Your task to perform on an android device: See recent photos Image 0: 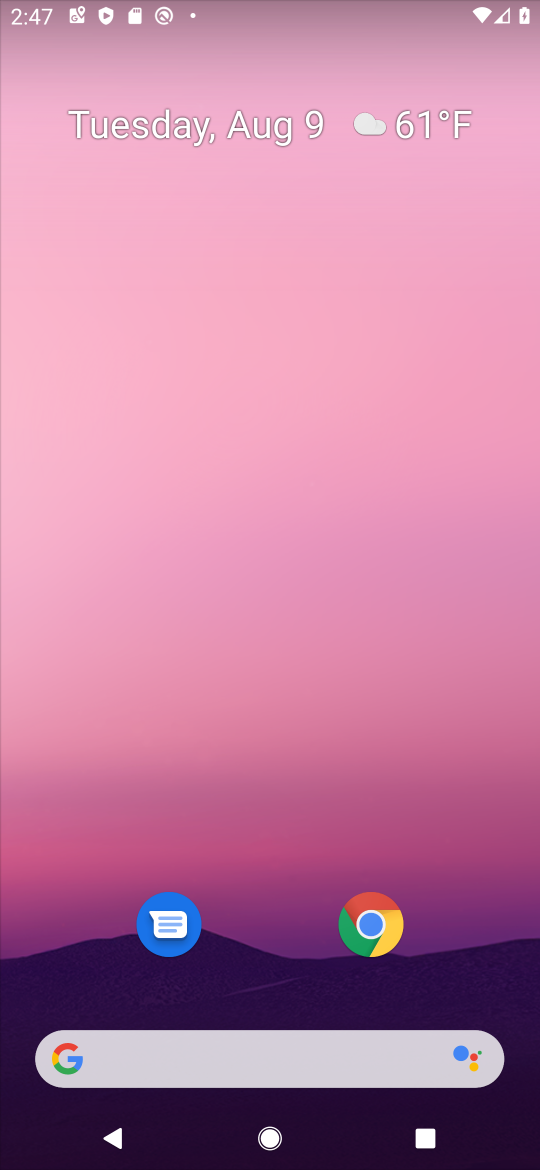
Step 0: drag from (305, 823) to (369, 2)
Your task to perform on an android device: See recent photos Image 1: 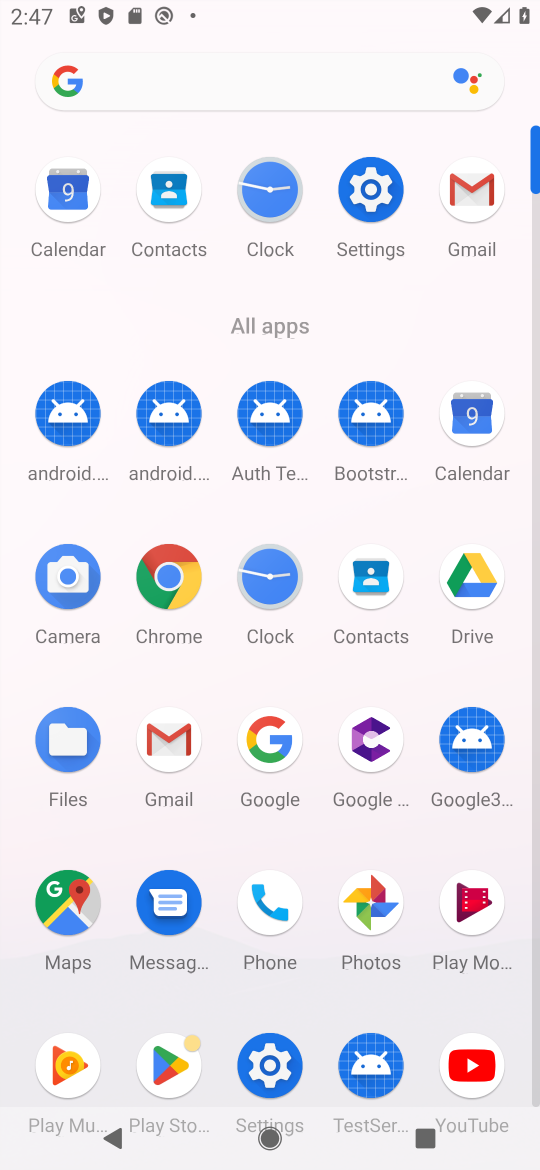
Step 1: click (383, 904)
Your task to perform on an android device: See recent photos Image 2: 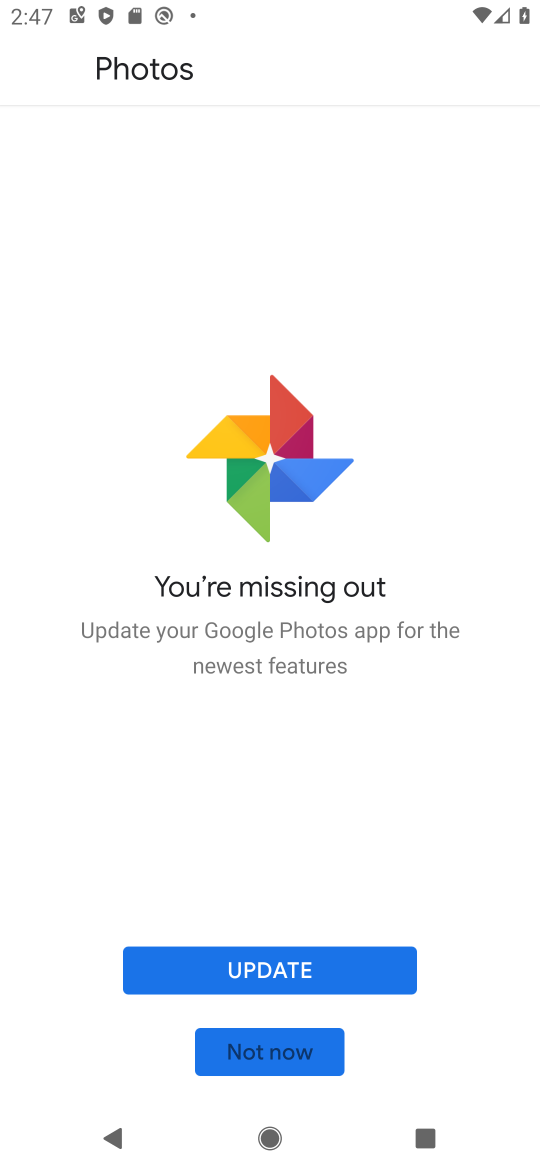
Step 2: click (293, 1057)
Your task to perform on an android device: See recent photos Image 3: 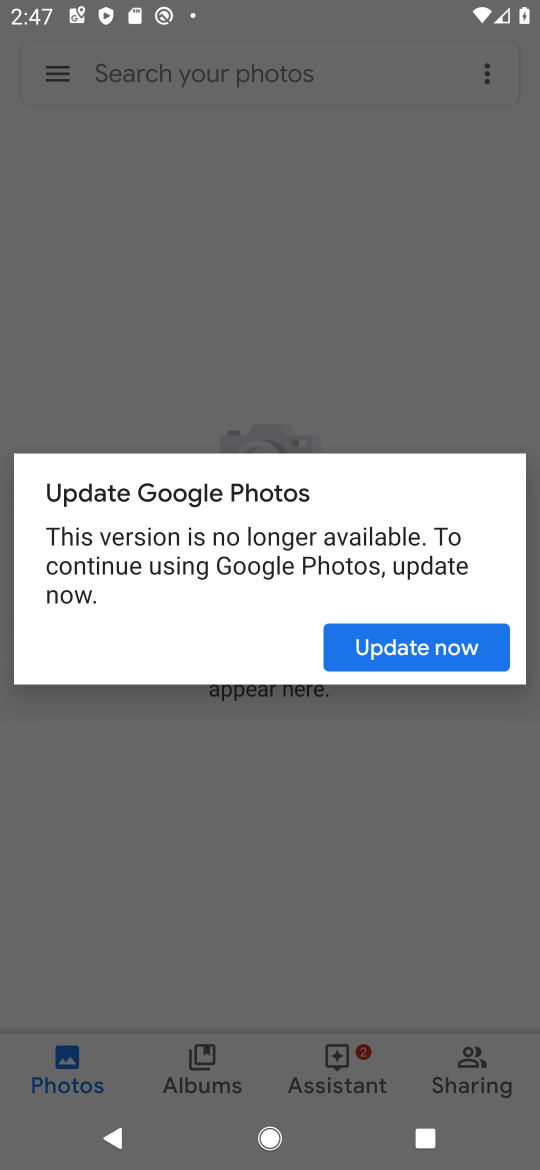
Step 3: click (490, 639)
Your task to perform on an android device: See recent photos Image 4: 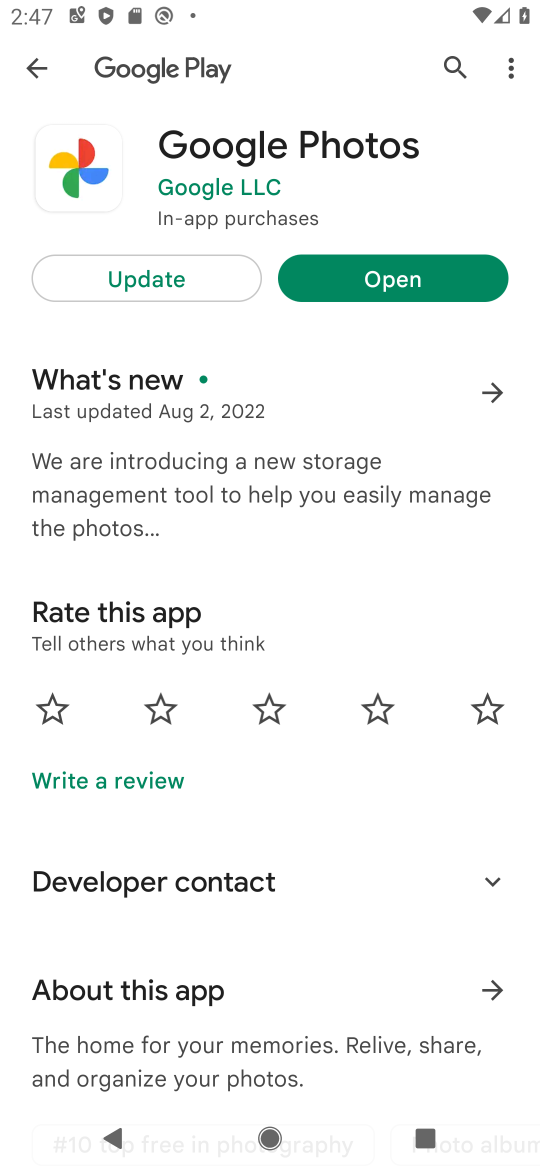
Step 4: click (458, 273)
Your task to perform on an android device: See recent photos Image 5: 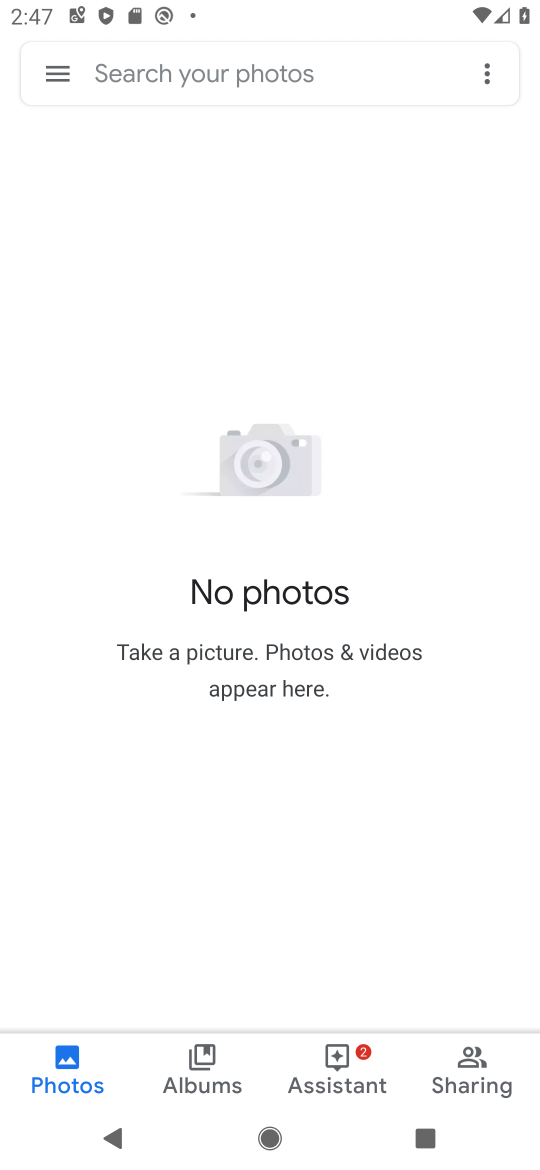
Step 5: task complete